Your task to perform on an android device: turn on the 12-hour format for clock Image 0: 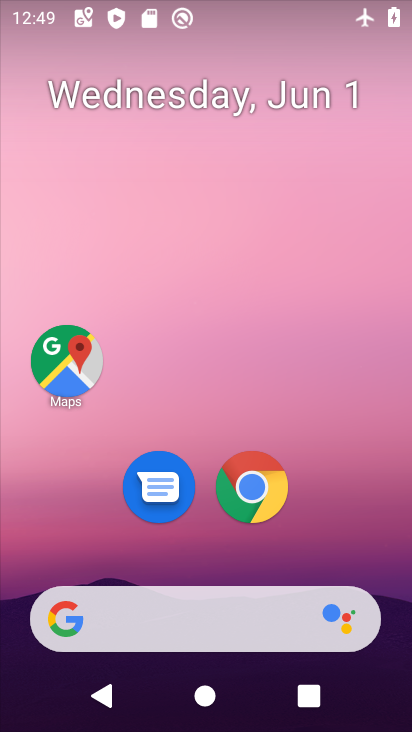
Step 0: drag from (291, 592) to (331, 245)
Your task to perform on an android device: turn on the 12-hour format for clock Image 1: 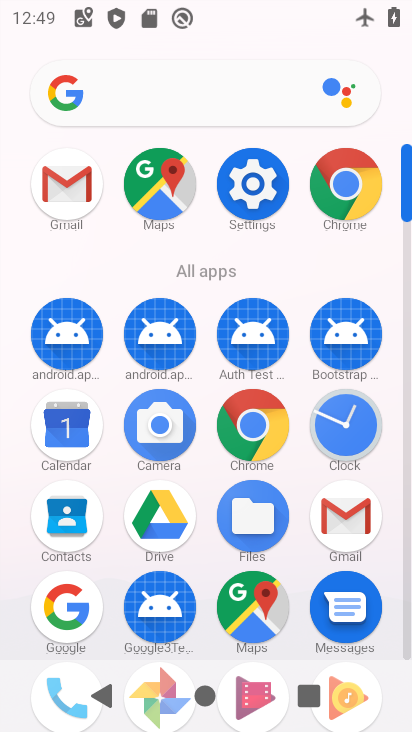
Step 1: click (357, 434)
Your task to perform on an android device: turn on the 12-hour format for clock Image 2: 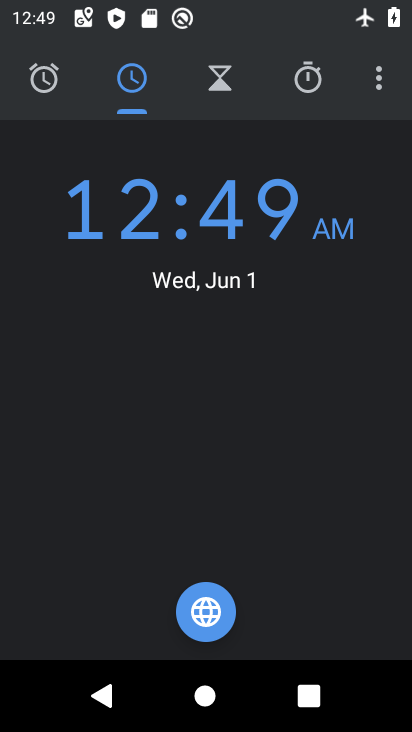
Step 2: click (370, 82)
Your task to perform on an android device: turn on the 12-hour format for clock Image 3: 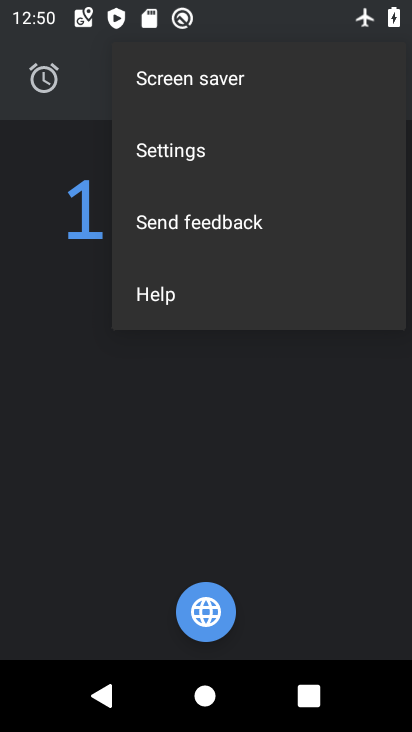
Step 3: click (198, 143)
Your task to perform on an android device: turn on the 12-hour format for clock Image 4: 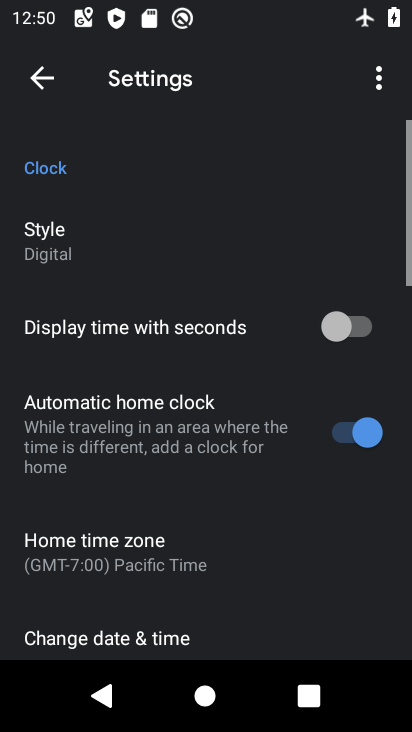
Step 4: drag from (194, 599) to (200, 366)
Your task to perform on an android device: turn on the 12-hour format for clock Image 5: 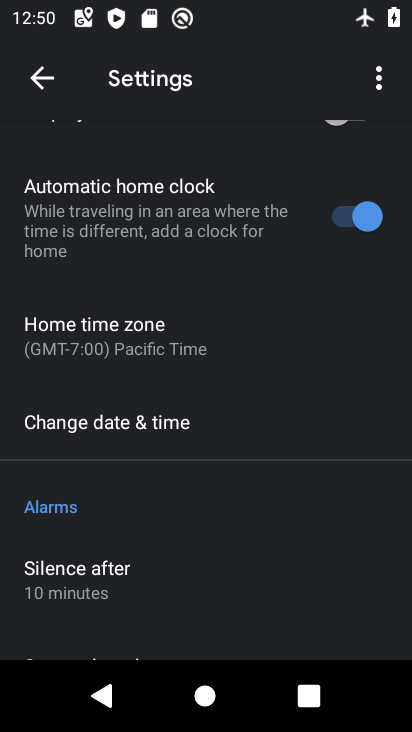
Step 5: click (156, 416)
Your task to perform on an android device: turn on the 12-hour format for clock Image 6: 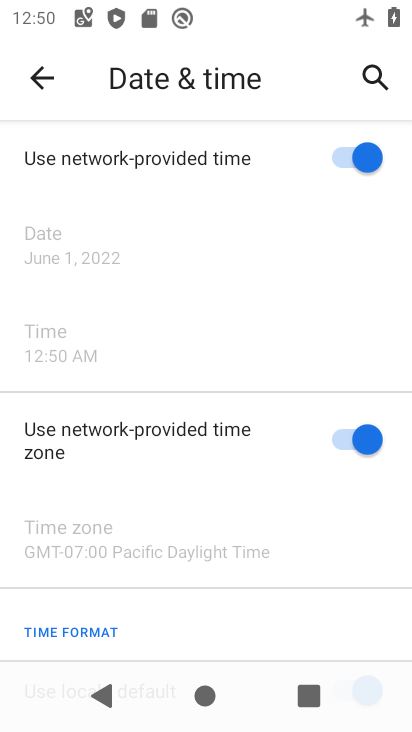
Step 6: drag from (298, 591) to (301, 224)
Your task to perform on an android device: turn on the 12-hour format for clock Image 7: 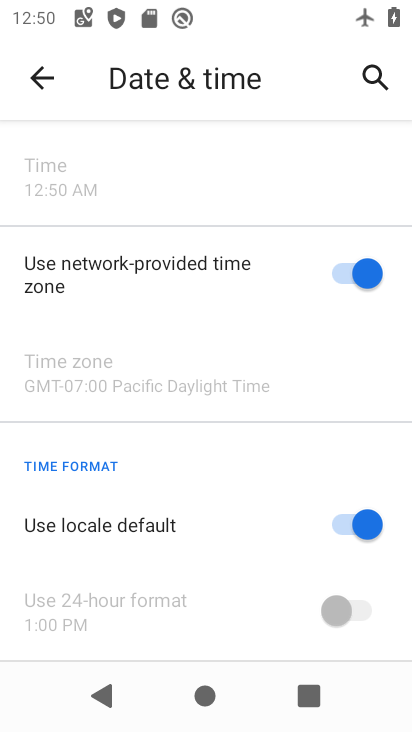
Step 7: click (338, 519)
Your task to perform on an android device: turn on the 12-hour format for clock Image 8: 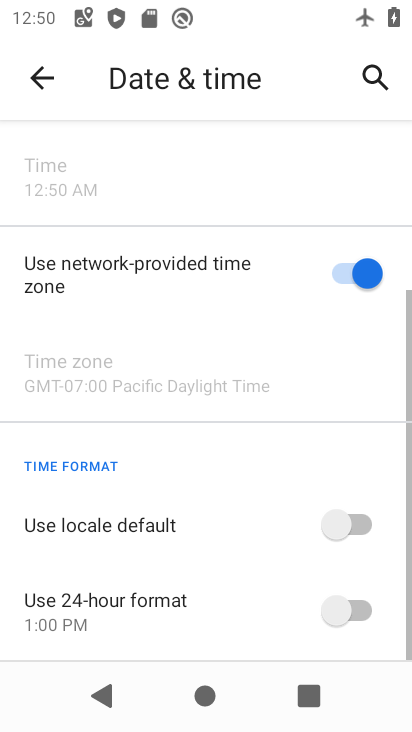
Step 8: click (346, 607)
Your task to perform on an android device: turn on the 12-hour format for clock Image 9: 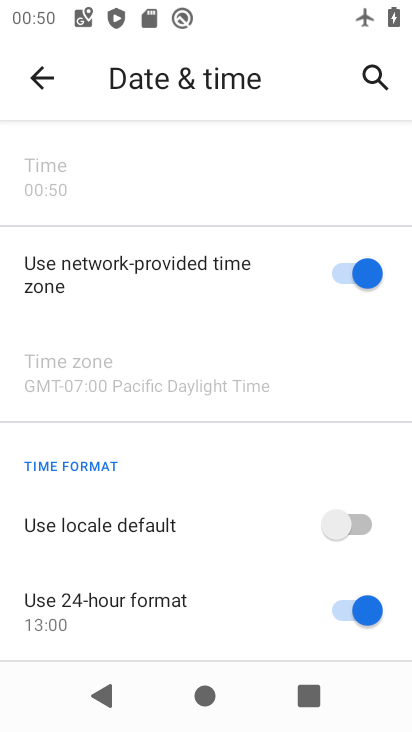
Step 9: task complete